Your task to perform on an android device: Go to Yahoo.com Image 0: 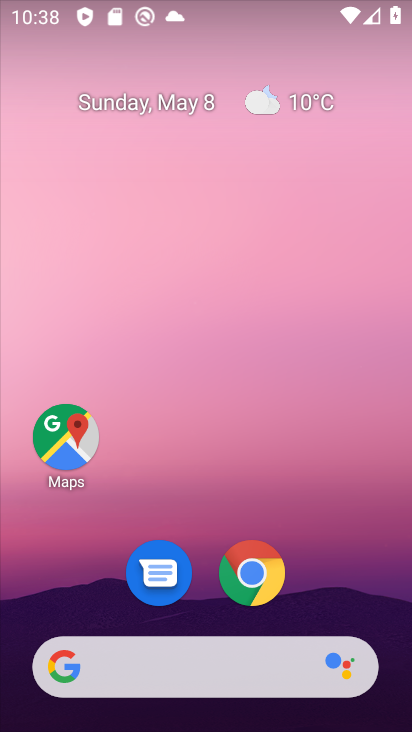
Step 0: click (255, 556)
Your task to perform on an android device: Go to Yahoo.com Image 1: 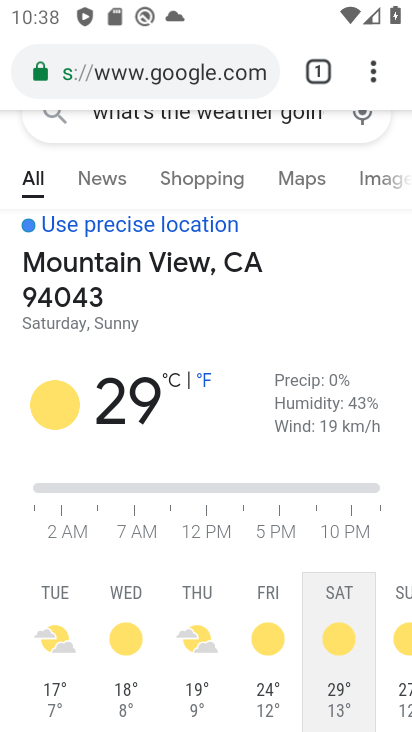
Step 1: click (141, 75)
Your task to perform on an android device: Go to Yahoo.com Image 2: 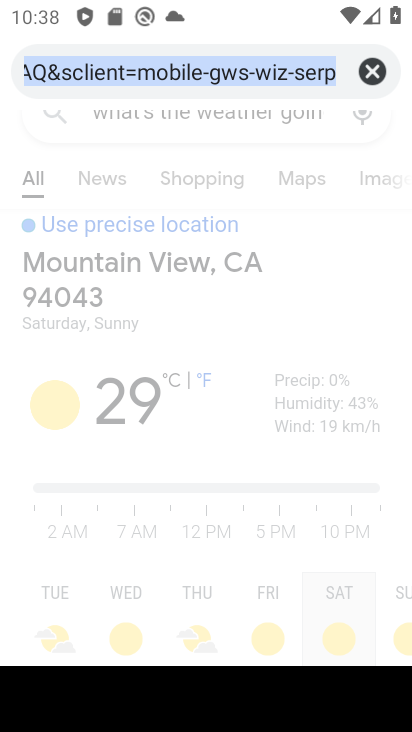
Step 2: click (365, 71)
Your task to perform on an android device: Go to Yahoo.com Image 3: 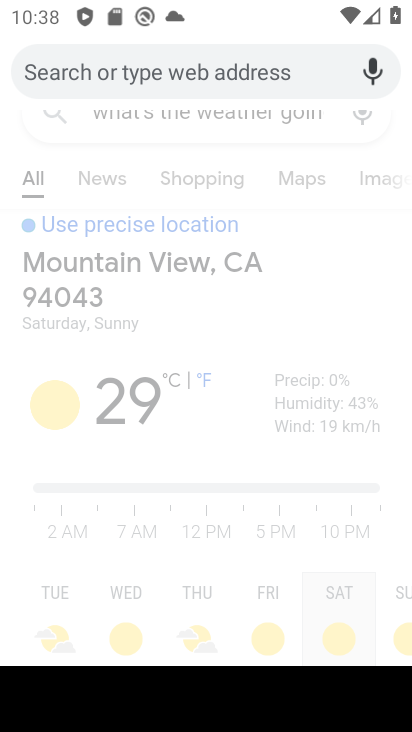
Step 3: type " Yahoo.com"
Your task to perform on an android device: Go to Yahoo.com Image 4: 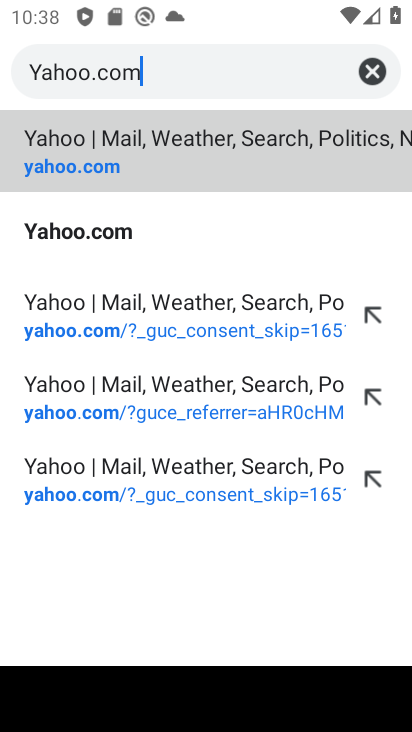
Step 4: click (278, 124)
Your task to perform on an android device: Go to Yahoo.com Image 5: 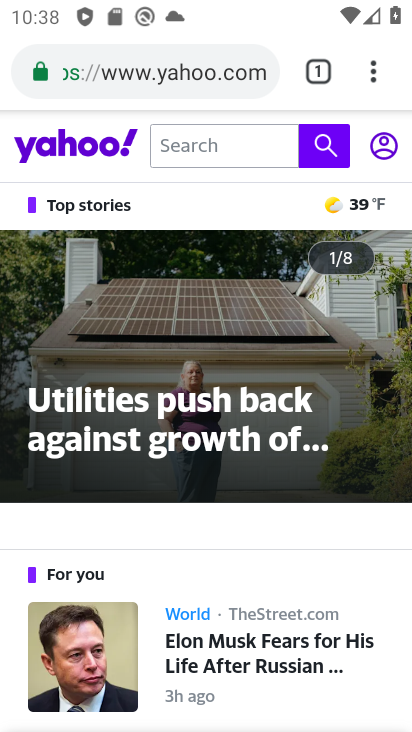
Step 5: task complete